Your task to perform on an android device: turn off notifications settings in the gmail app Image 0: 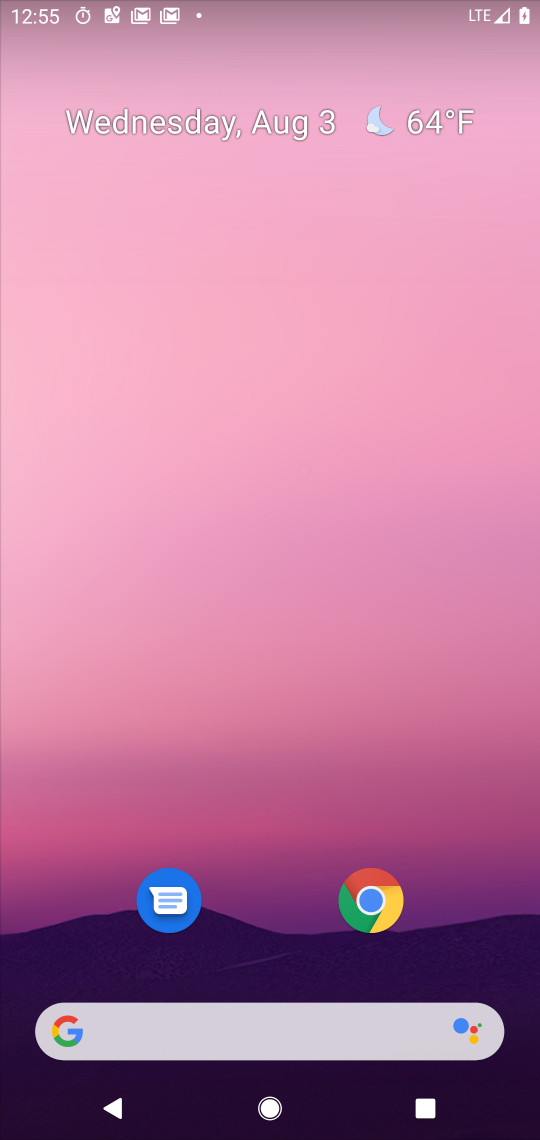
Step 0: drag from (279, 801) to (381, 176)
Your task to perform on an android device: turn off notifications settings in the gmail app Image 1: 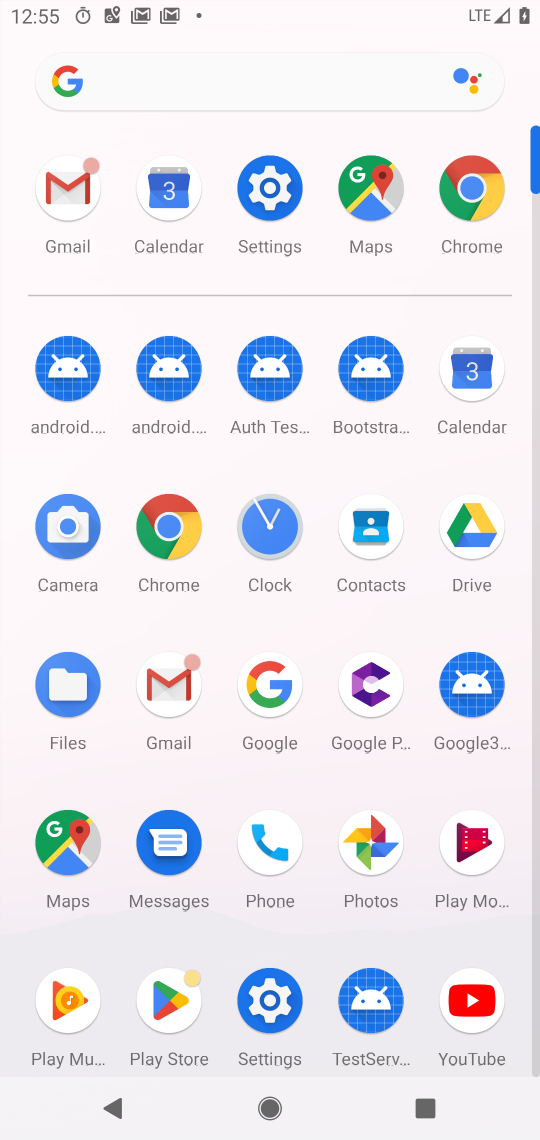
Step 1: click (274, 186)
Your task to perform on an android device: turn off notifications settings in the gmail app Image 2: 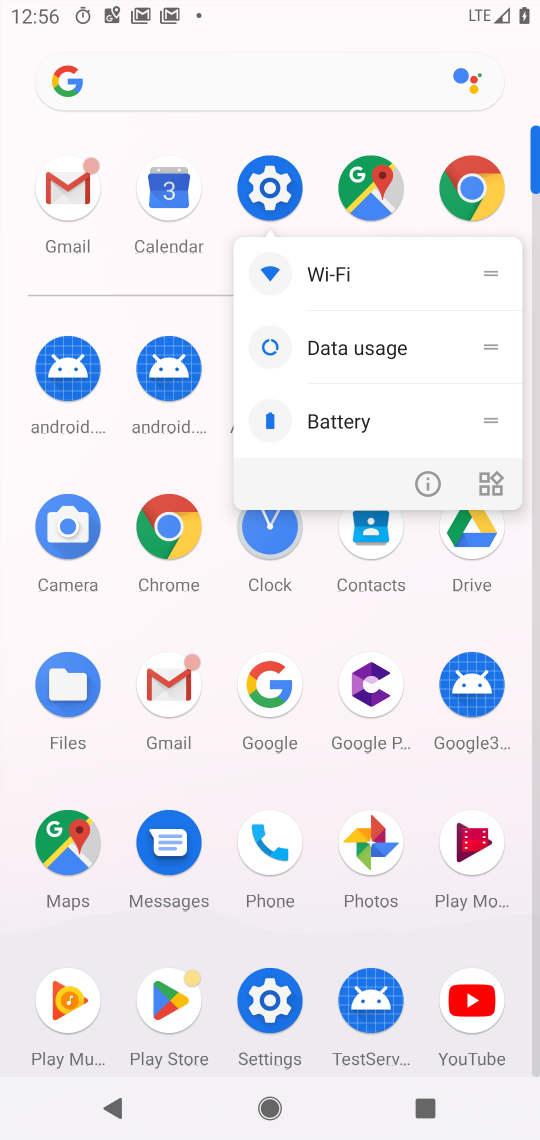
Step 2: click (277, 1008)
Your task to perform on an android device: turn off notifications settings in the gmail app Image 3: 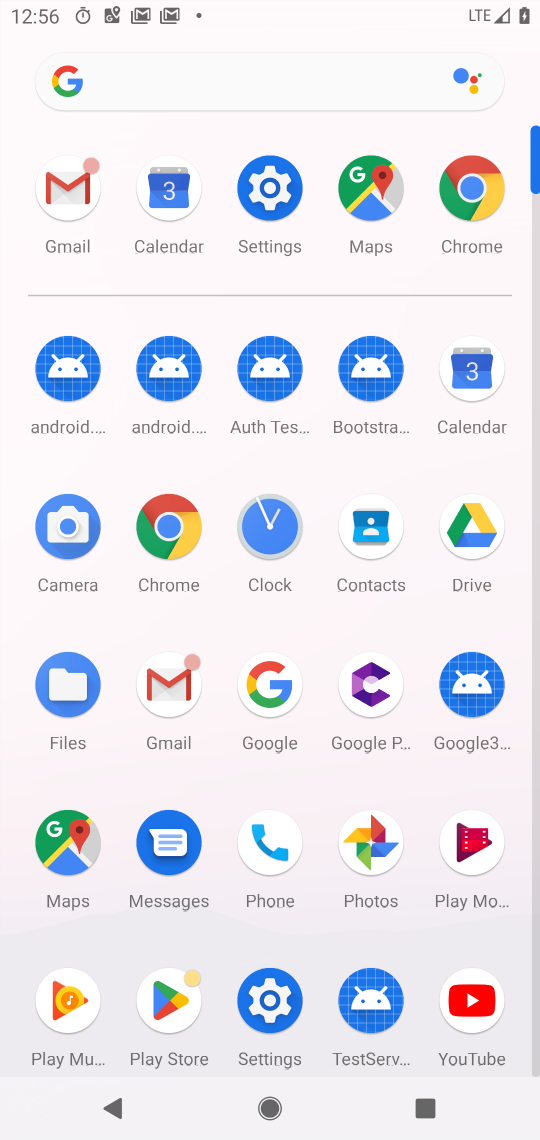
Step 3: click (277, 1008)
Your task to perform on an android device: turn off notifications settings in the gmail app Image 4: 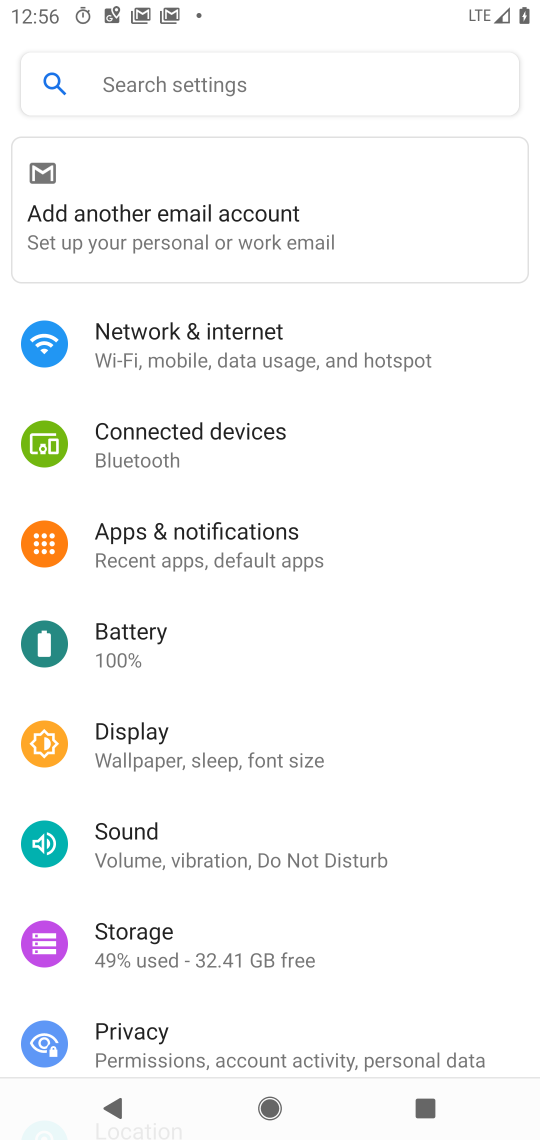
Step 4: click (214, 547)
Your task to perform on an android device: turn off notifications settings in the gmail app Image 5: 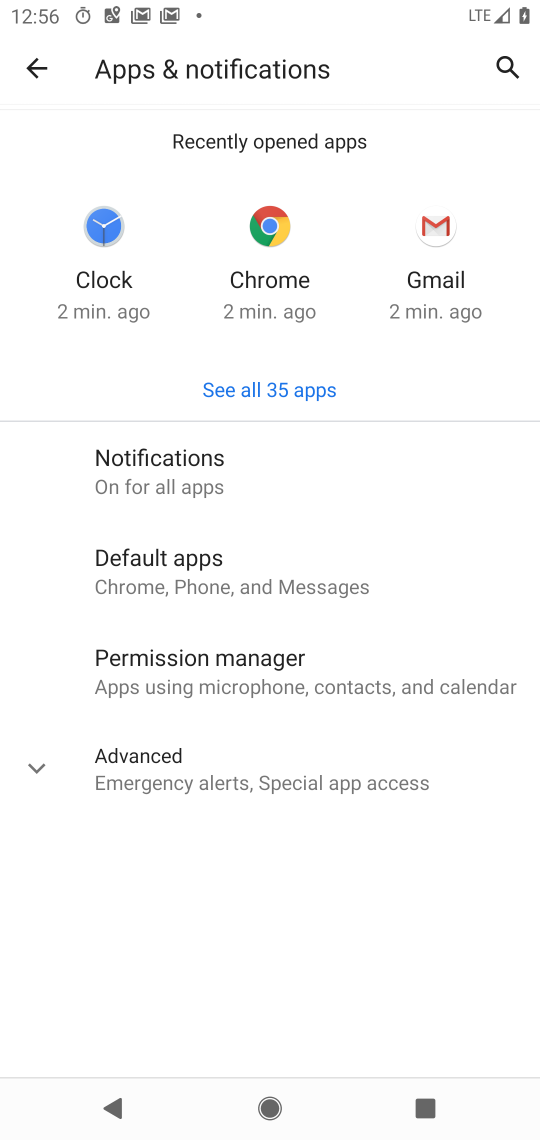
Step 5: click (151, 491)
Your task to perform on an android device: turn off notifications settings in the gmail app Image 6: 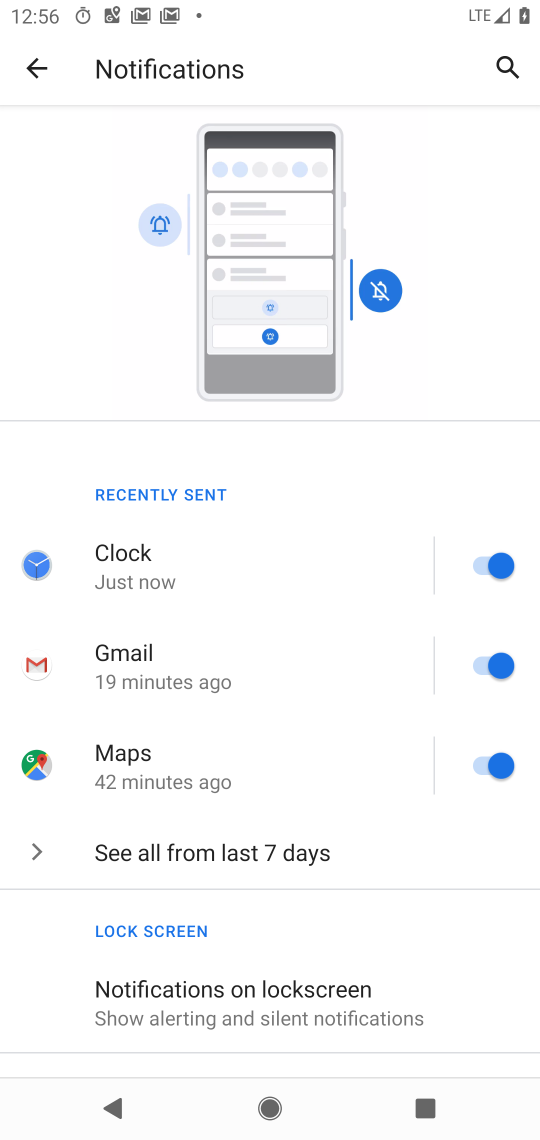
Step 6: drag from (291, 935) to (317, 222)
Your task to perform on an android device: turn off notifications settings in the gmail app Image 7: 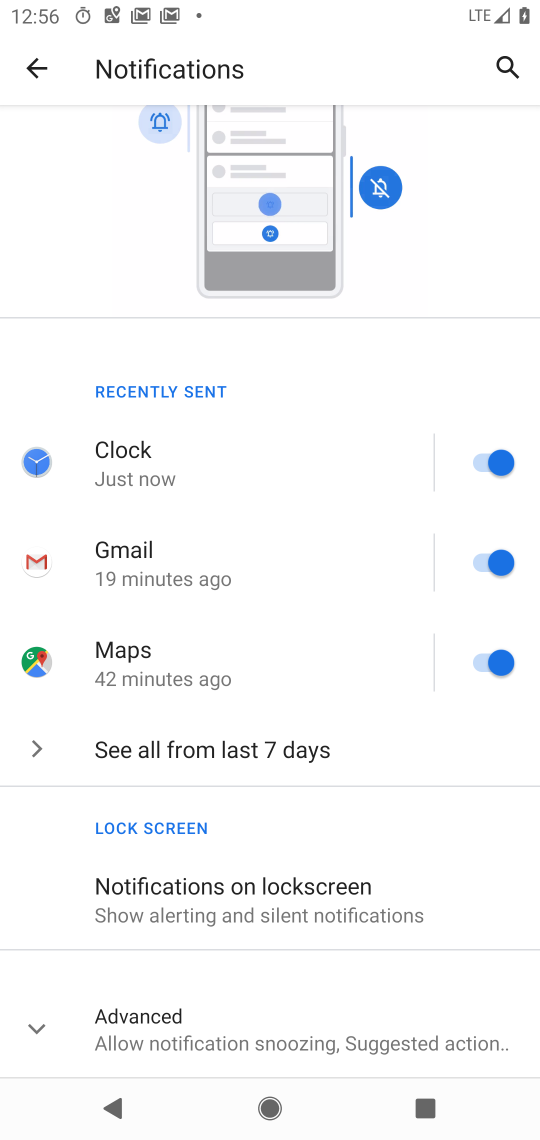
Step 7: click (479, 560)
Your task to perform on an android device: turn off notifications settings in the gmail app Image 8: 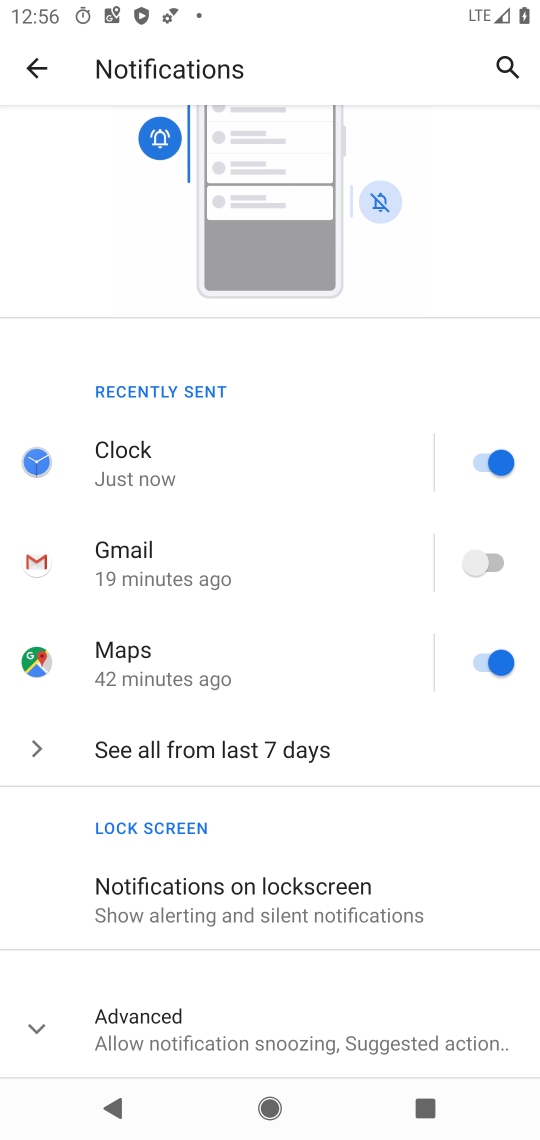
Step 8: task complete